Your task to perform on an android device: Open notification settings Image 0: 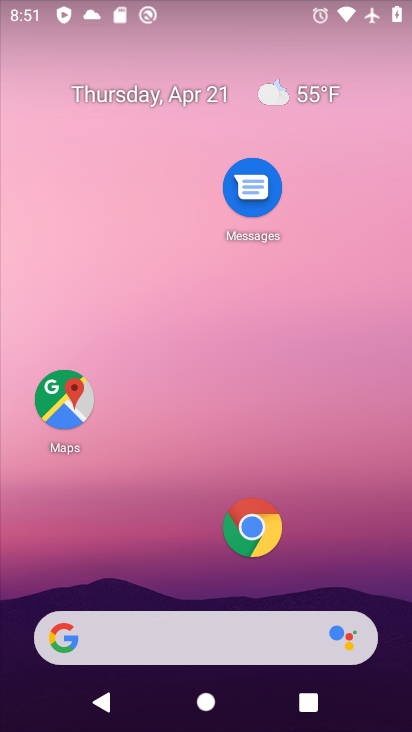
Step 0: drag from (150, 641) to (304, 93)
Your task to perform on an android device: Open notification settings Image 1: 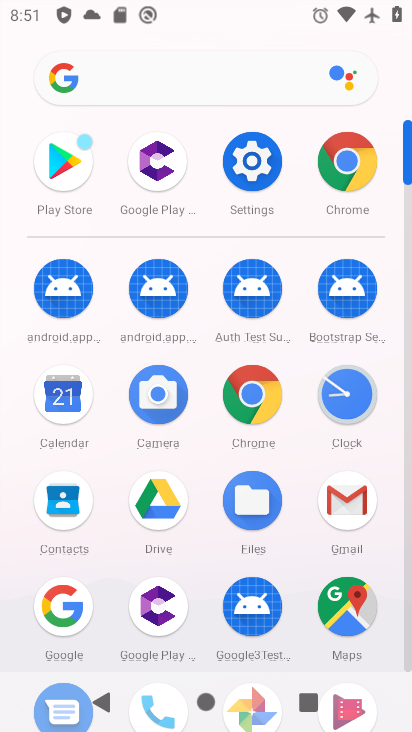
Step 1: click (251, 166)
Your task to perform on an android device: Open notification settings Image 2: 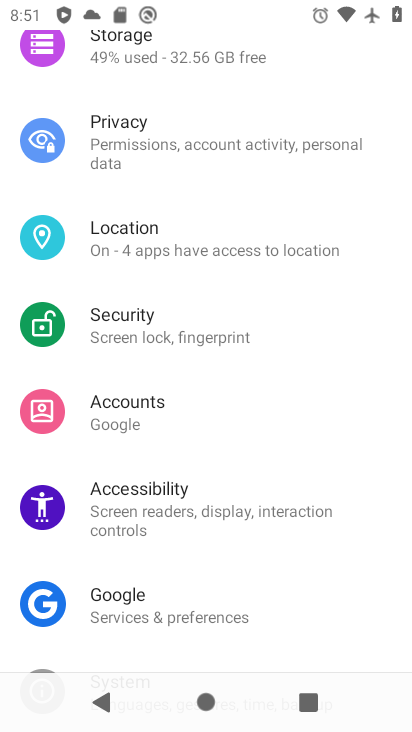
Step 2: drag from (274, 193) to (267, 601)
Your task to perform on an android device: Open notification settings Image 3: 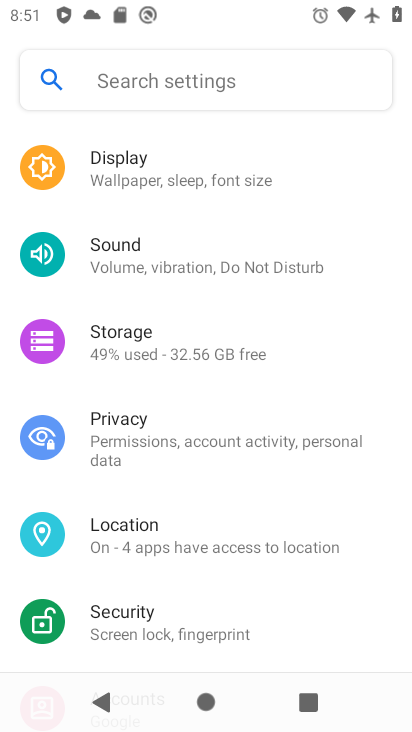
Step 3: drag from (296, 233) to (286, 661)
Your task to perform on an android device: Open notification settings Image 4: 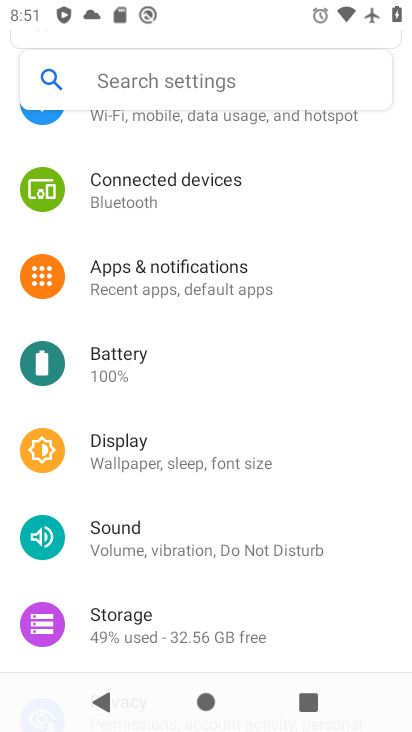
Step 4: click (192, 274)
Your task to perform on an android device: Open notification settings Image 5: 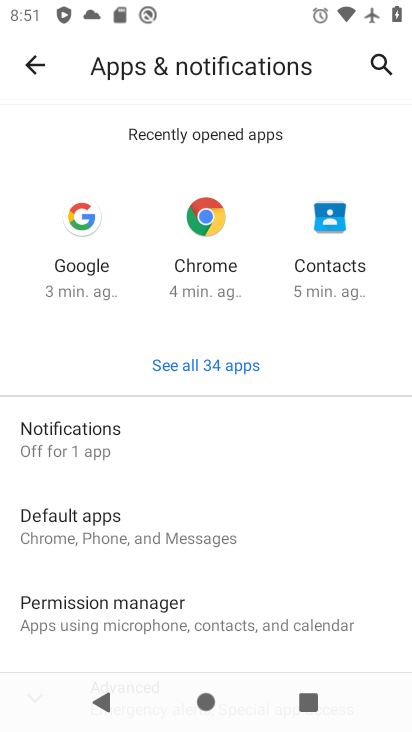
Step 5: click (78, 446)
Your task to perform on an android device: Open notification settings Image 6: 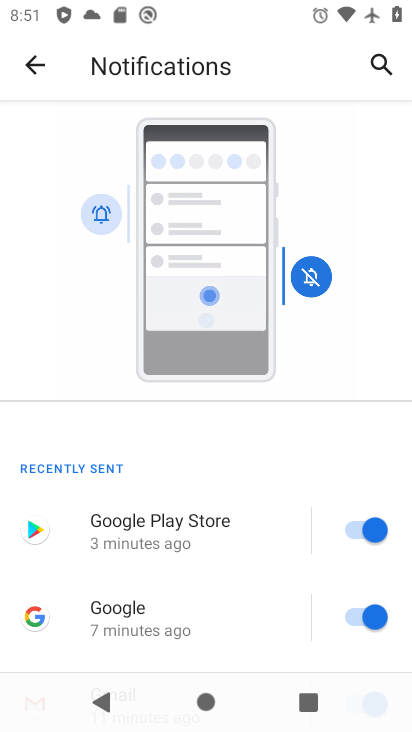
Step 6: task complete